Your task to perform on an android device: Show me popular games on the Play Store Image 0: 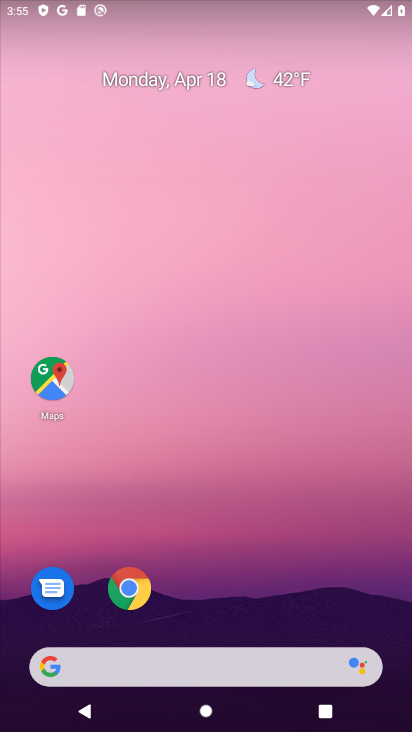
Step 0: drag from (225, 532) to (274, 194)
Your task to perform on an android device: Show me popular games on the Play Store Image 1: 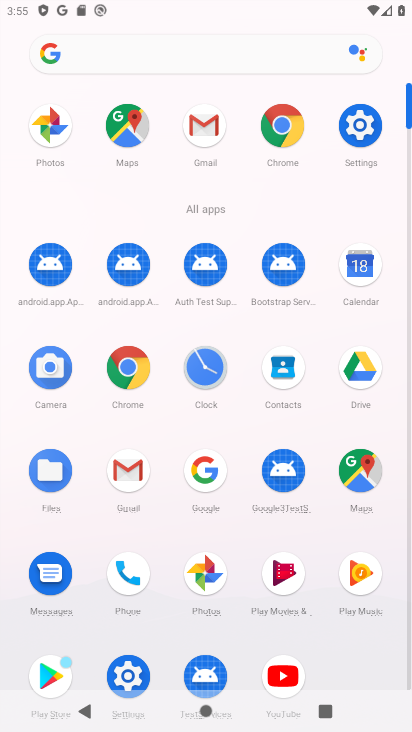
Step 1: click (66, 669)
Your task to perform on an android device: Show me popular games on the Play Store Image 2: 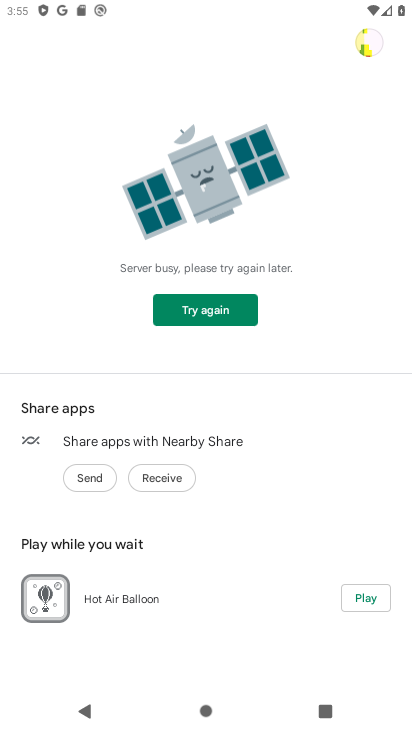
Step 2: click (227, 323)
Your task to perform on an android device: Show me popular games on the Play Store Image 3: 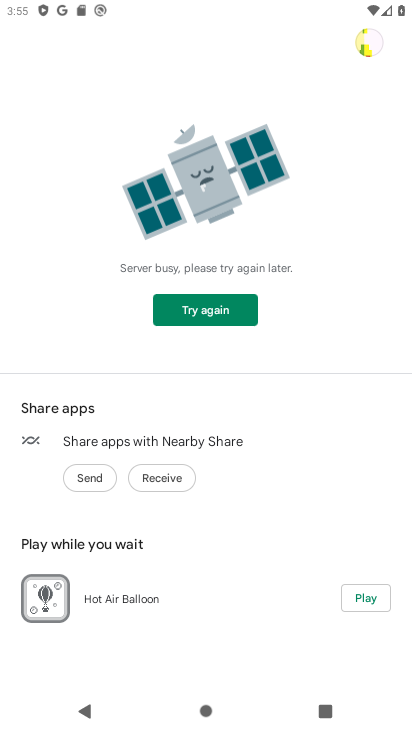
Step 3: click (227, 320)
Your task to perform on an android device: Show me popular games on the Play Store Image 4: 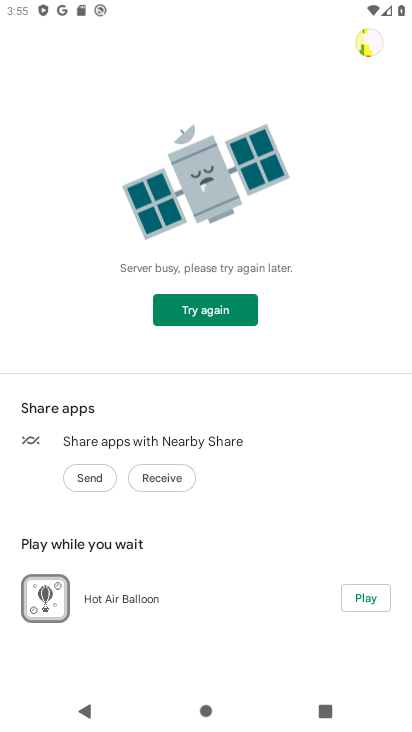
Step 4: task complete